Your task to perform on an android device: install app "Etsy: Buy & Sell Unique Items" Image 0: 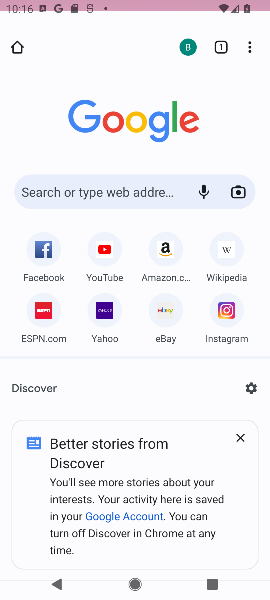
Step 0: press home button
Your task to perform on an android device: install app "Etsy: Buy & Sell Unique Items" Image 1: 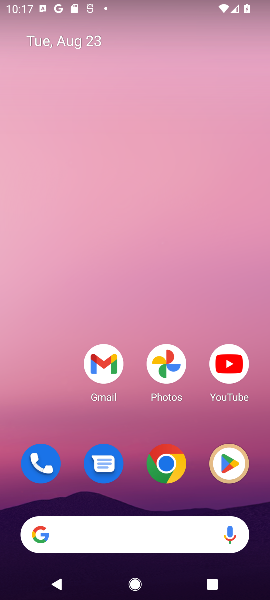
Step 1: click (230, 464)
Your task to perform on an android device: install app "Etsy: Buy & Sell Unique Items" Image 2: 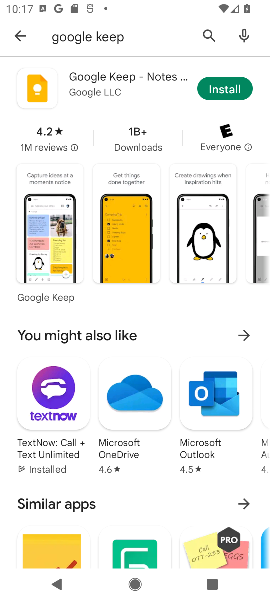
Step 2: click (199, 30)
Your task to perform on an android device: install app "Etsy: Buy & Sell Unique Items" Image 3: 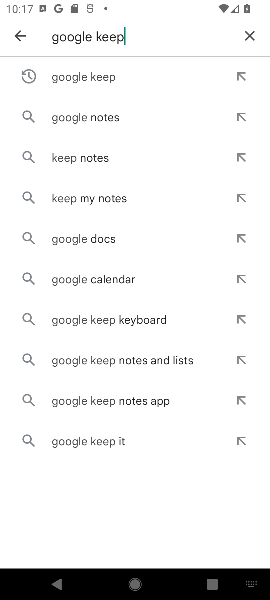
Step 3: click (252, 33)
Your task to perform on an android device: install app "Etsy: Buy & Sell Unique Items" Image 4: 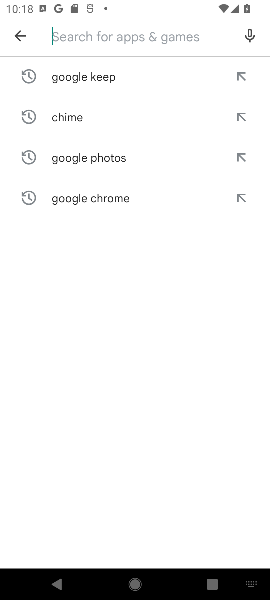
Step 4: type "Etsy"
Your task to perform on an android device: install app "Etsy: Buy & Sell Unique Items" Image 5: 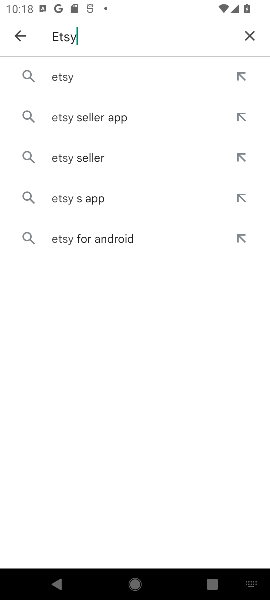
Step 5: click (83, 70)
Your task to perform on an android device: install app "Etsy: Buy & Sell Unique Items" Image 6: 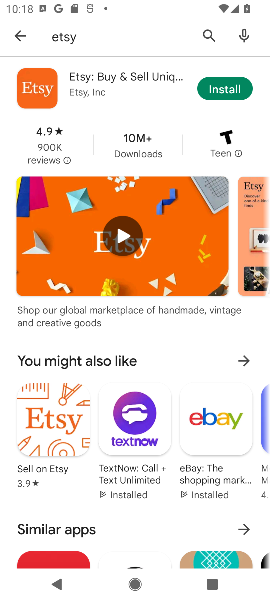
Step 6: click (230, 88)
Your task to perform on an android device: install app "Etsy: Buy & Sell Unique Items" Image 7: 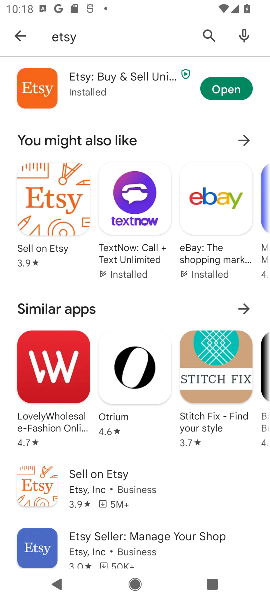
Step 7: click (221, 92)
Your task to perform on an android device: install app "Etsy: Buy & Sell Unique Items" Image 8: 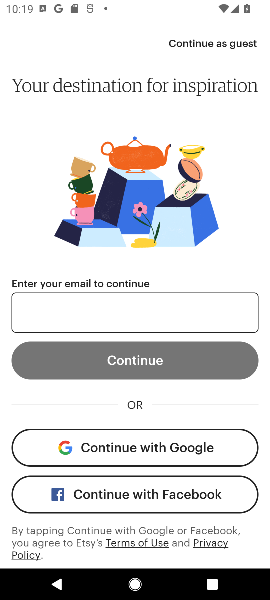
Step 8: click (145, 447)
Your task to perform on an android device: install app "Etsy: Buy & Sell Unique Items" Image 9: 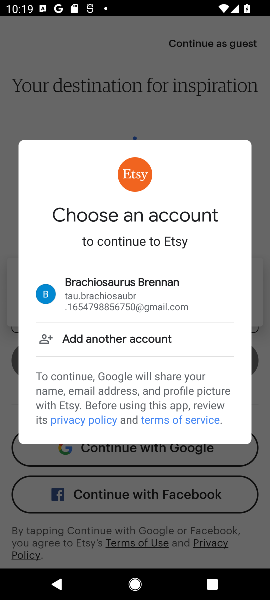
Step 9: click (64, 292)
Your task to perform on an android device: install app "Etsy: Buy & Sell Unique Items" Image 10: 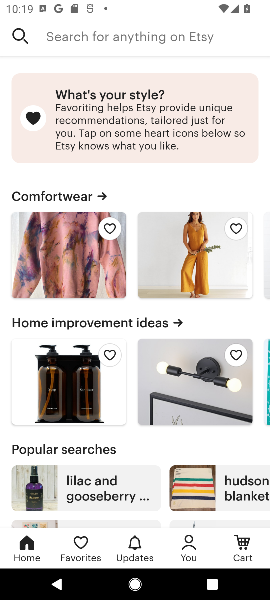
Step 10: task complete